Your task to perform on an android device: open app "Spotify: Music and Podcasts" Image 0: 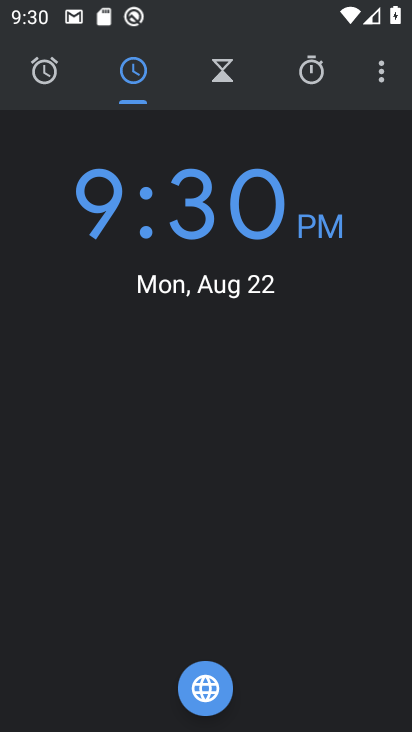
Step 0: press home button
Your task to perform on an android device: open app "Spotify: Music and Podcasts" Image 1: 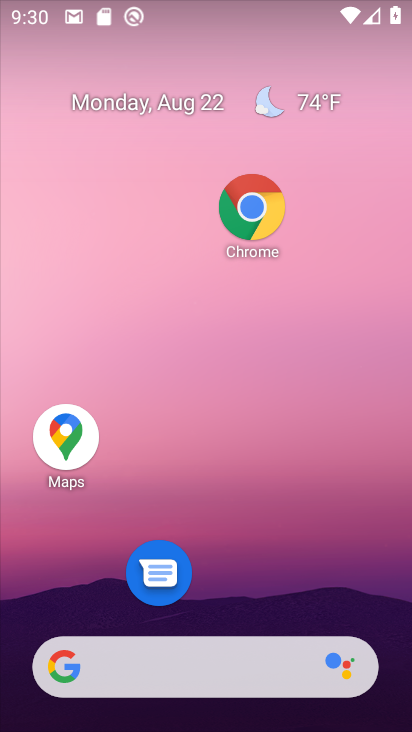
Step 1: drag from (242, 654) to (211, 10)
Your task to perform on an android device: open app "Spotify: Music and Podcasts" Image 2: 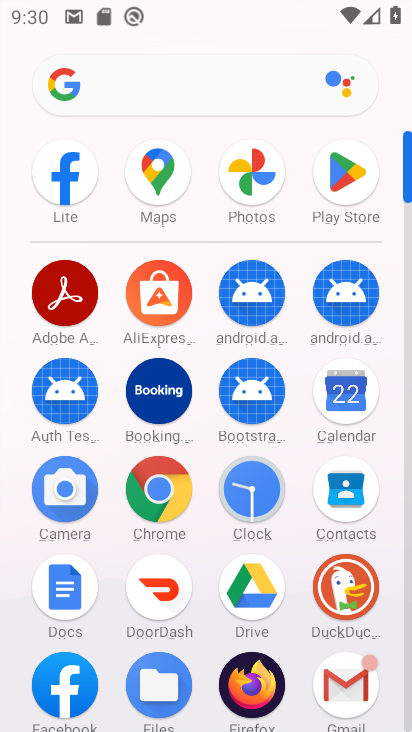
Step 2: click (355, 190)
Your task to perform on an android device: open app "Spotify: Music and Podcasts" Image 3: 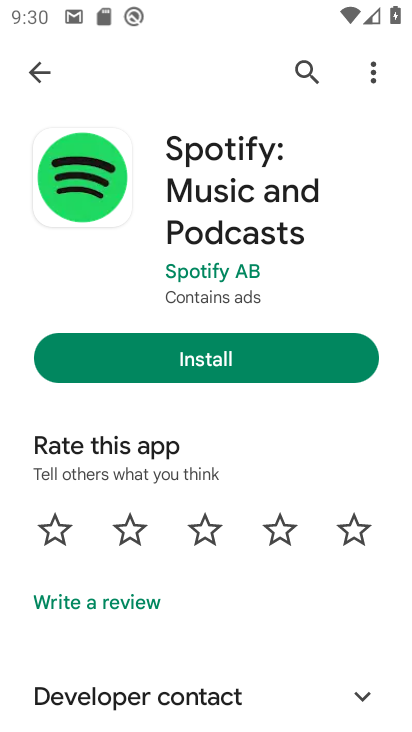
Step 3: click (41, 78)
Your task to perform on an android device: open app "Spotify: Music and Podcasts" Image 4: 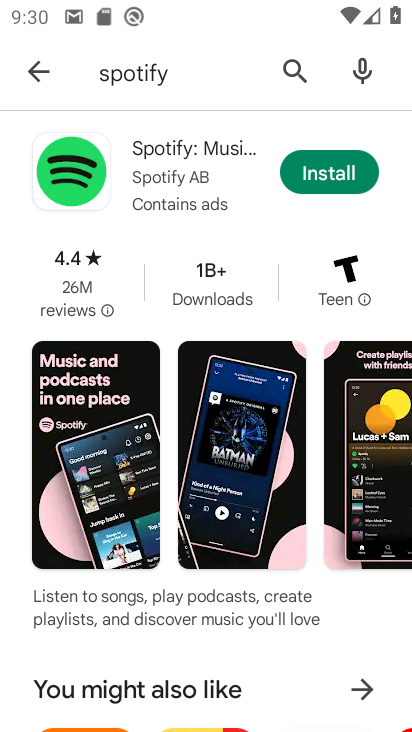
Step 4: task complete